Your task to perform on an android device: Open Chrome and go to settings Image 0: 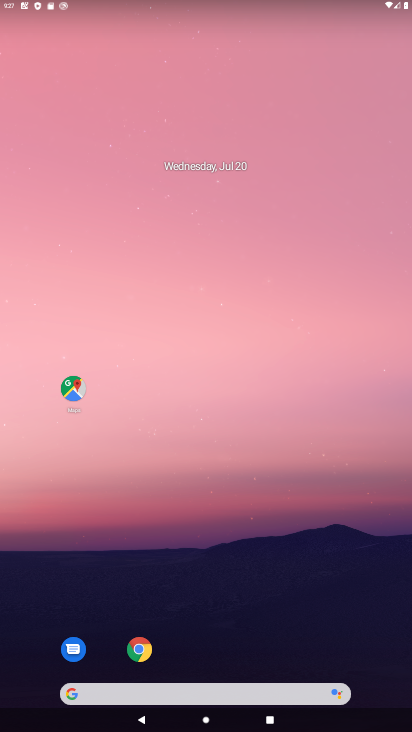
Step 0: click (138, 637)
Your task to perform on an android device: Open Chrome and go to settings Image 1: 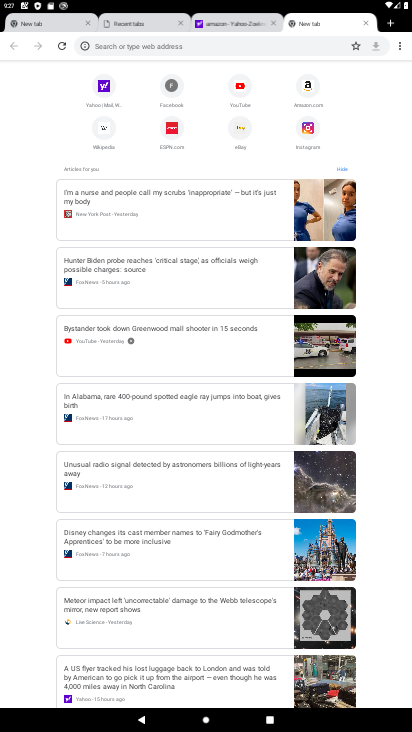
Step 1: click (402, 45)
Your task to perform on an android device: Open Chrome and go to settings Image 2: 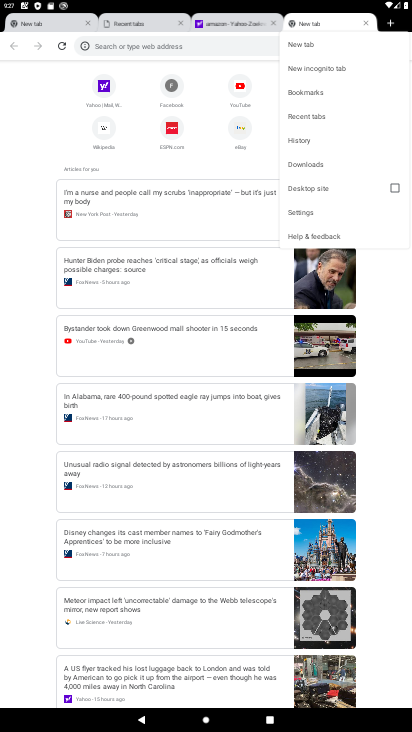
Step 2: click (295, 212)
Your task to perform on an android device: Open Chrome and go to settings Image 3: 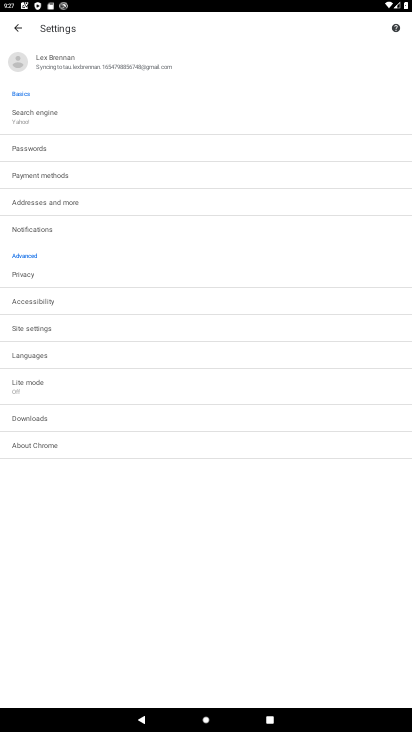
Step 3: task complete